Your task to perform on an android device: Open the web browser Image 0: 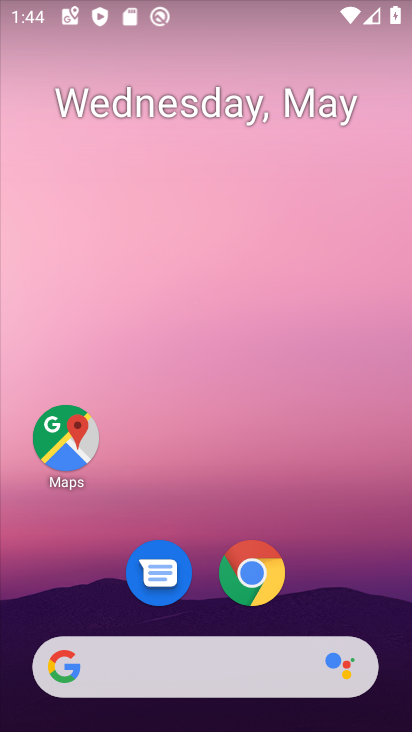
Step 0: click (242, 572)
Your task to perform on an android device: Open the web browser Image 1: 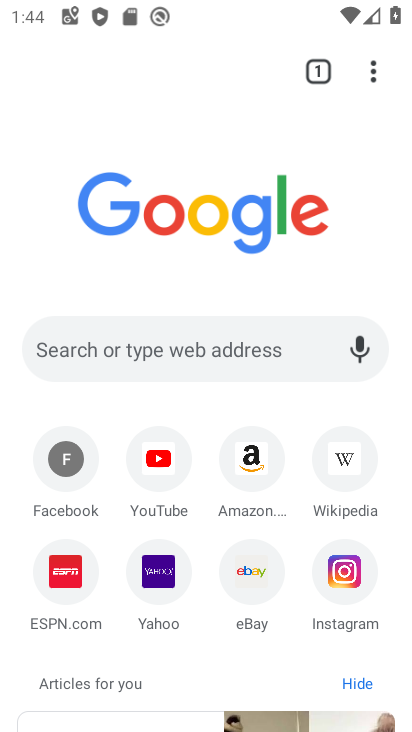
Step 1: task complete